Your task to perform on an android device: star an email in the gmail app Image 0: 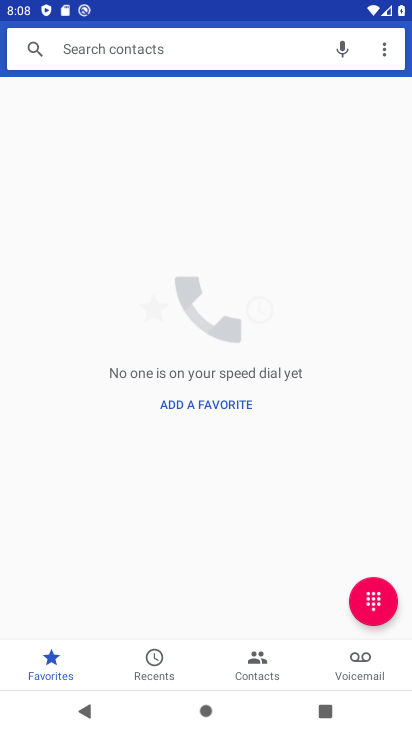
Step 0: press home button
Your task to perform on an android device: star an email in the gmail app Image 1: 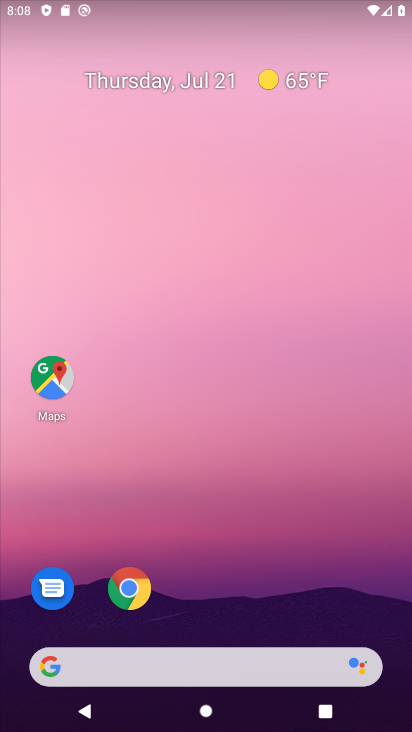
Step 1: drag from (223, 629) to (140, 30)
Your task to perform on an android device: star an email in the gmail app Image 2: 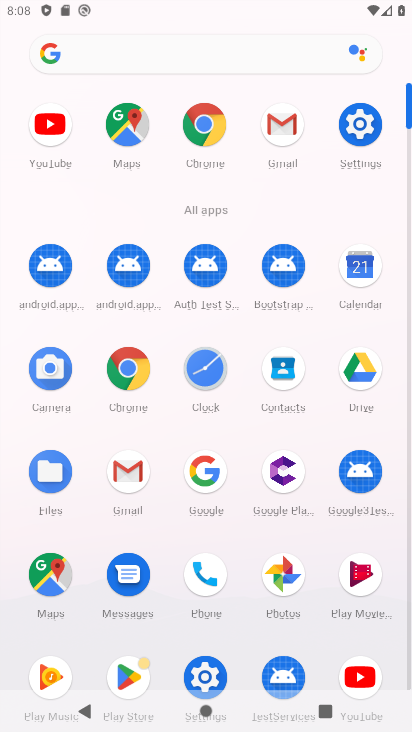
Step 2: click (135, 469)
Your task to perform on an android device: star an email in the gmail app Image 3: 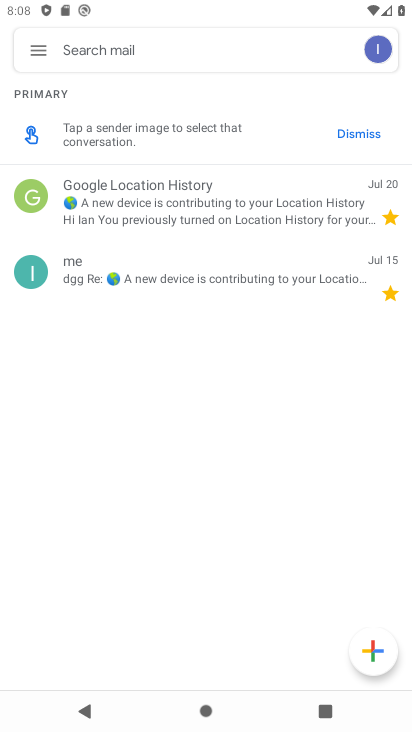
Step 3: task complete